Your task to perform on an android device: Go to accessibility settings Image 0: 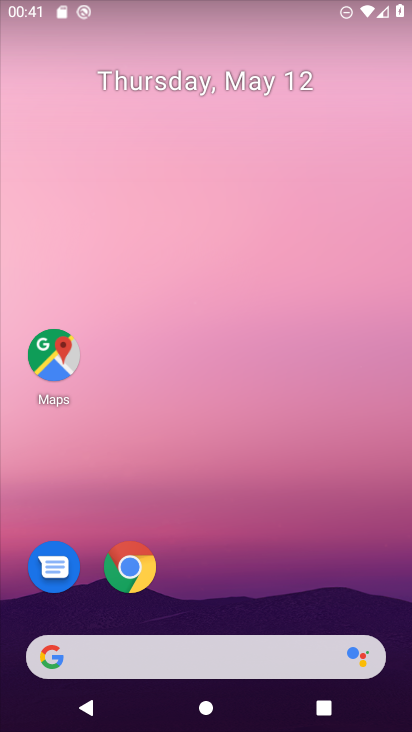
Step 0: drag from (242, 689) to (248, 19)
Your task to perform on an android device: Go to accessibility settings Image 1: 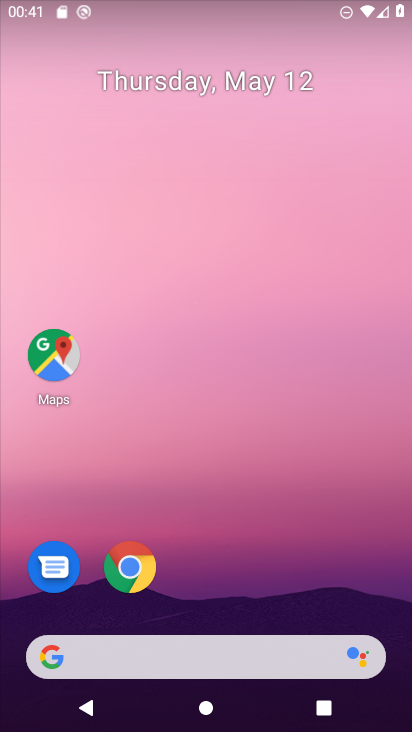
Step 1: drag from (269, 705) to (187, 2)
Your task to perform on an android device: Go to accessibility settings Image 2: 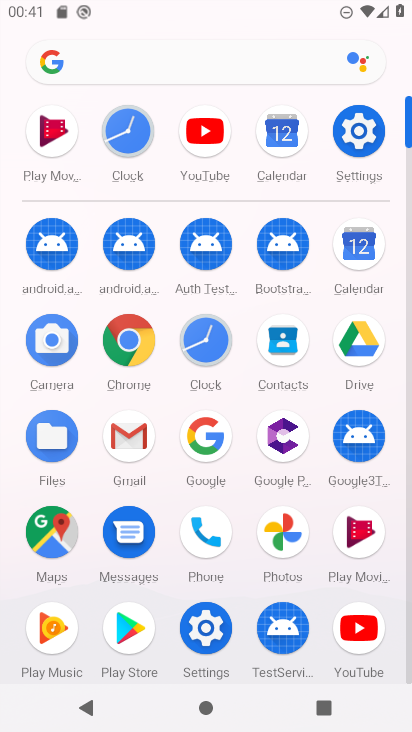
Step 2: click (351, 138)
Your task to perform on an android device: Go to accessibility settings Image 3: 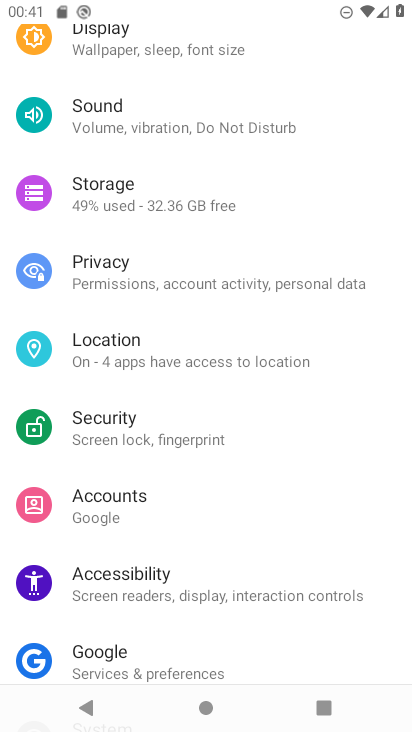
Step 3: click (238, 588)
Your task to perform on an android device: Go to accessibility settings Image 4: 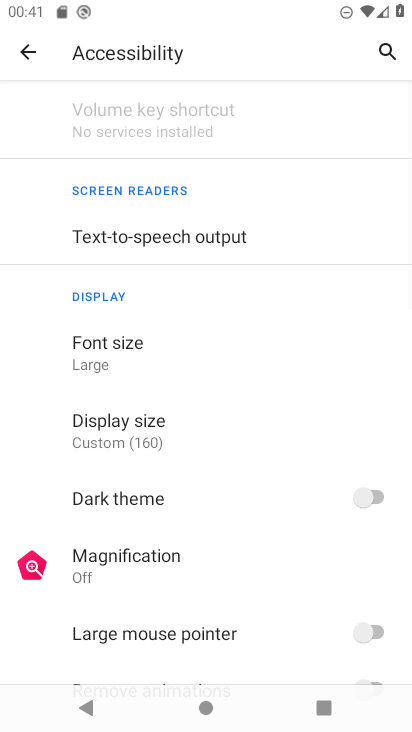
Step 4: task complete